Your task to perform on an android device: change the clock style Image 0: 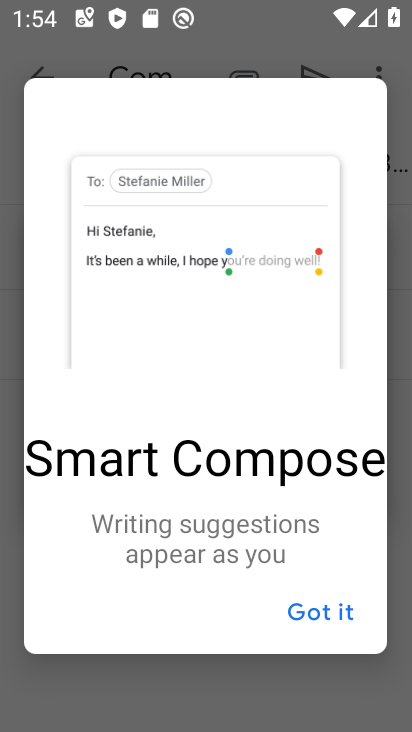
Step 0: press home button
Your task to perform on an android device: change the clock style Image 1: 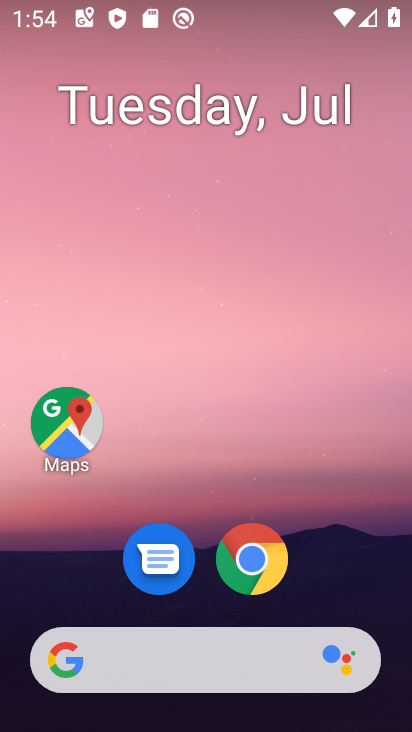
Step 1: drag from (365, 588) to (366, 112)
Your task to perform on an android device: change the clock style Image 2: 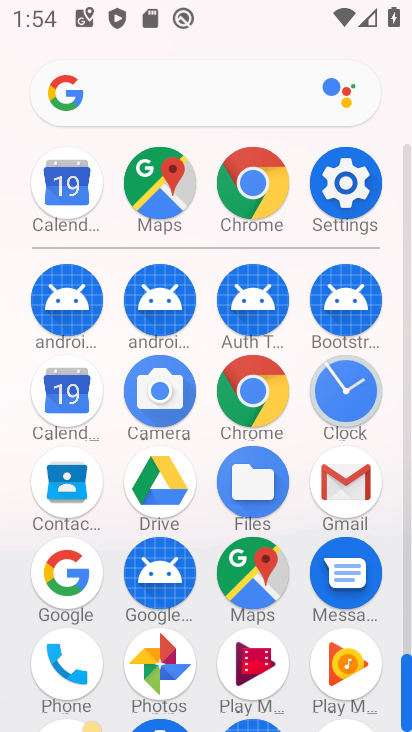
Step 2: click (355, 391)
Your task to perform on an android device: change the clock style Image 3: 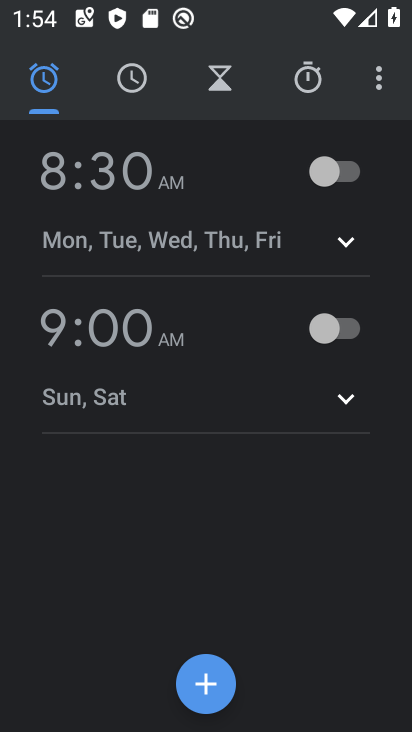
Step 3: click (382, 95)
Your task to perform on an android device: change the clock style Image 4: 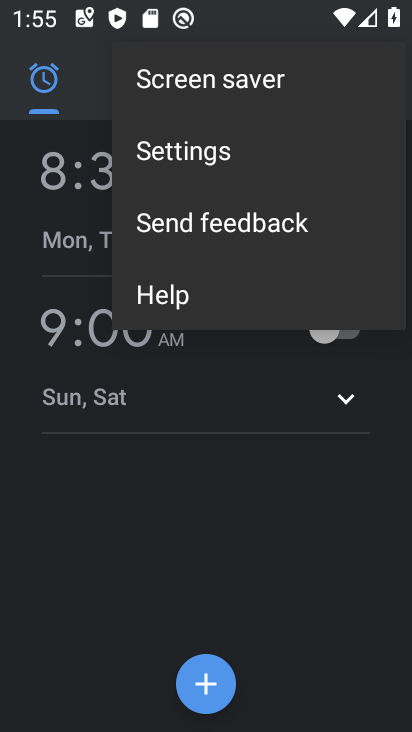
Step 4: click (240, 150)
Your task to perform on an android device: change the clock style Image 5: 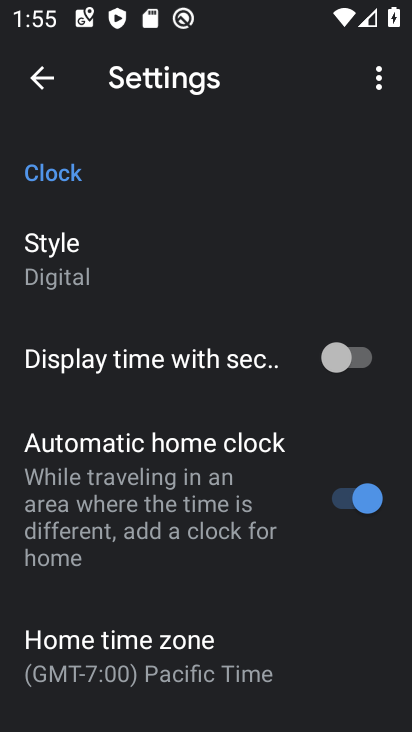
Step 5: click (160, 271)
Your task to perform on an android device: change the clock style Image 6: 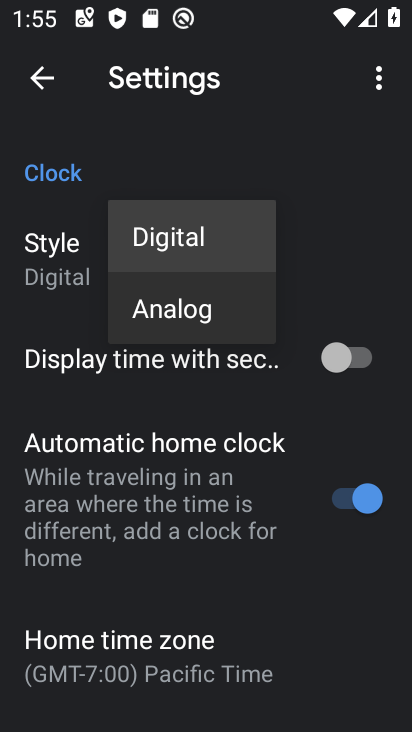
Step 6: click (172, 310)
Your task to perform on an android device: change the clock style Image 7: 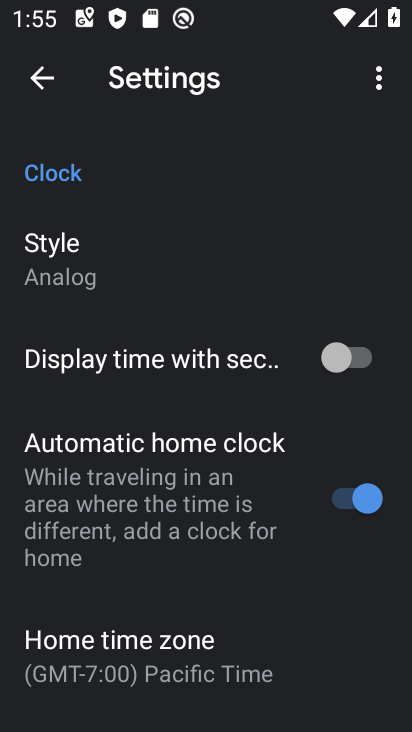
Step 7: task complete